Your task to perform on an android device: toggle improve location accuracy Image 0: 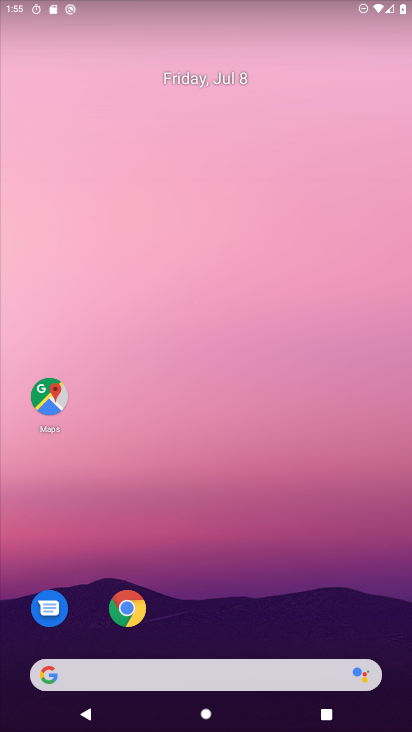
Step 0: drag from (228, 717) to (233, 88)
Your task to perform on an android device: toggle improve location accuracy Image 1: 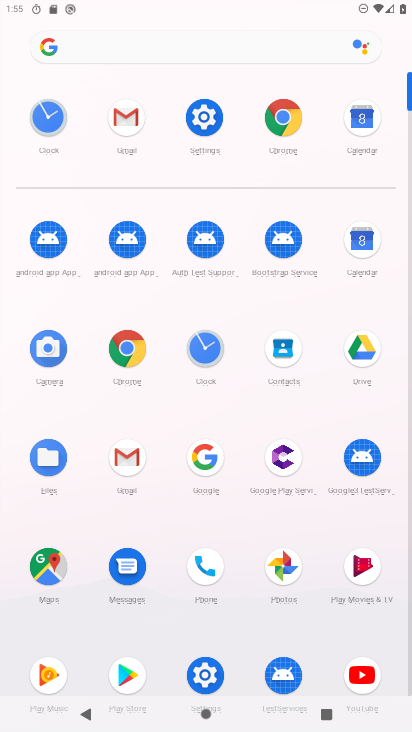
Step 1: click (201, 119)
Your task to perform on an android device: toggle improve location accuracy Image 2: 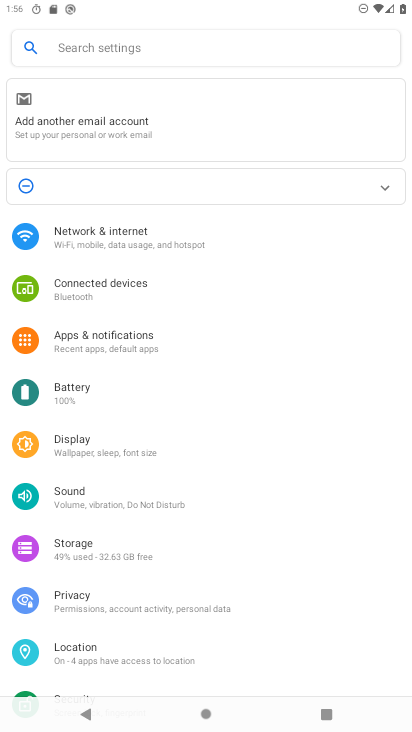
Step 2: drag from (172, 635) to (167, 327)
Your task to perform on an android device: toggle improve location accuracy Image 3: 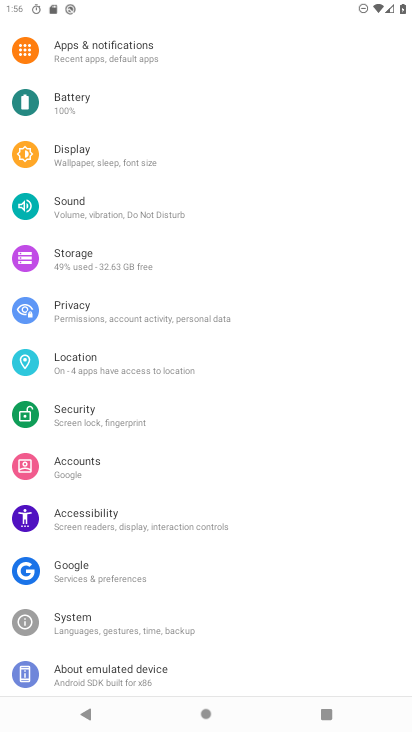
Step 3: click (93, 359)
Your task to perform on an android device: toggle improve location accuracy Image 4: 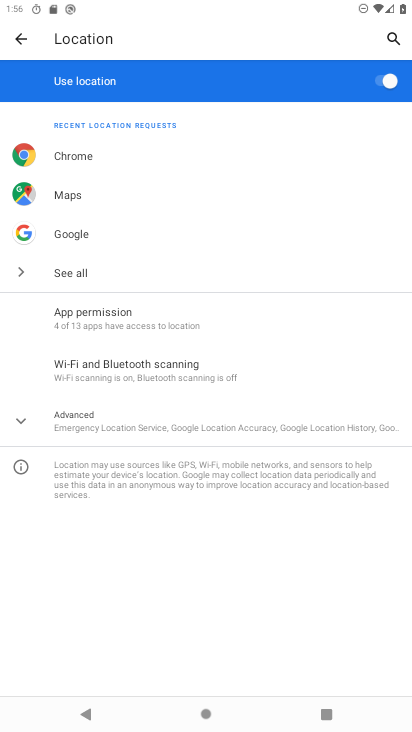
Step 4: click (105, 421)
Your task to perform on an android device: toggle improve location accuracy Image 5: 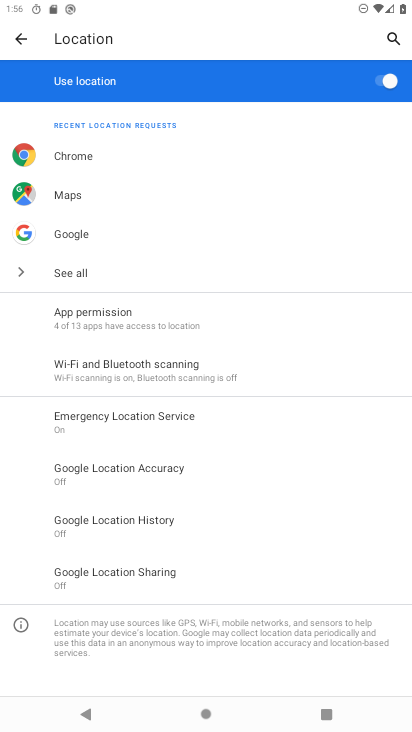
Step 5: click (150, 468)
Your task to perform on an android device: toggle improve location accuracy Image 6: 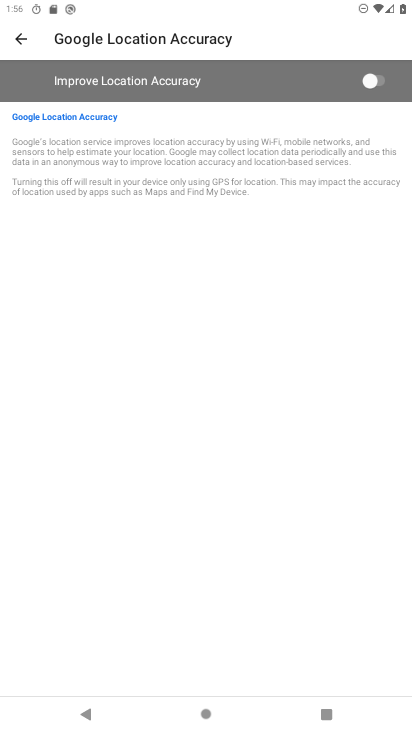
Step 6: click (375, 79)
Your task to perform on an android device: toggle improve location accuracy Image 7: 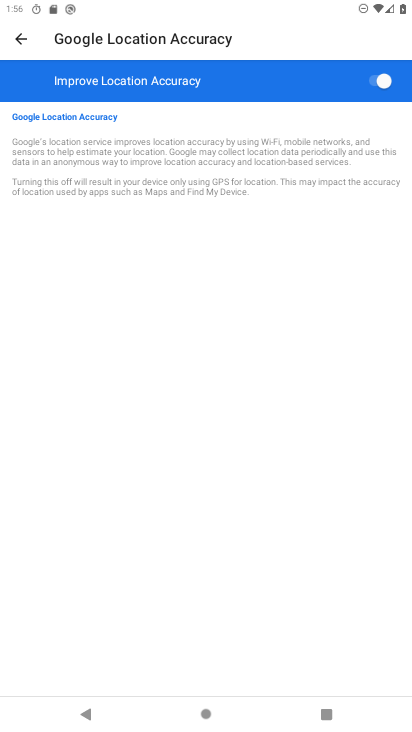
Step 7: task complete